Your task to perform on an android device: See recent photos Image 0: 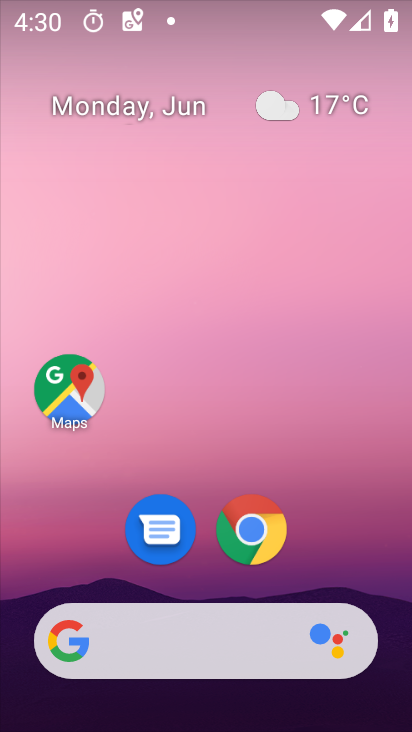
Step 0: drag from (334, 555) to (293, 119)
Your task to perform on an android device: See recent photos Image 1: 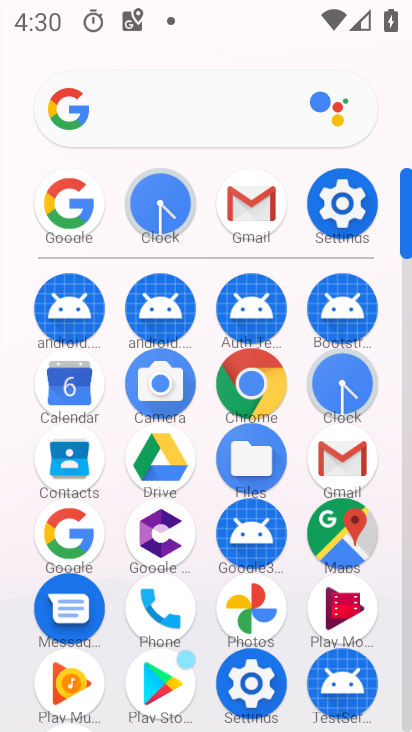
Step 1: click (254, 604)
Your task to perform on an android device: See recent photos Image 2: 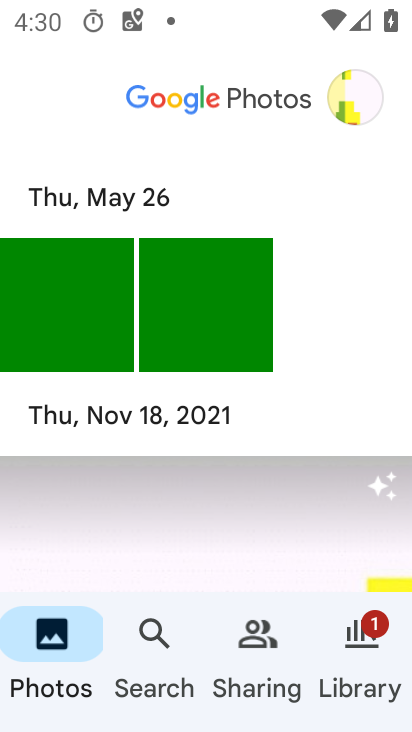
Step 2: drag from (134, 508) to (235, 250)
Your task to perform on an android device: See recent photos Image 3: 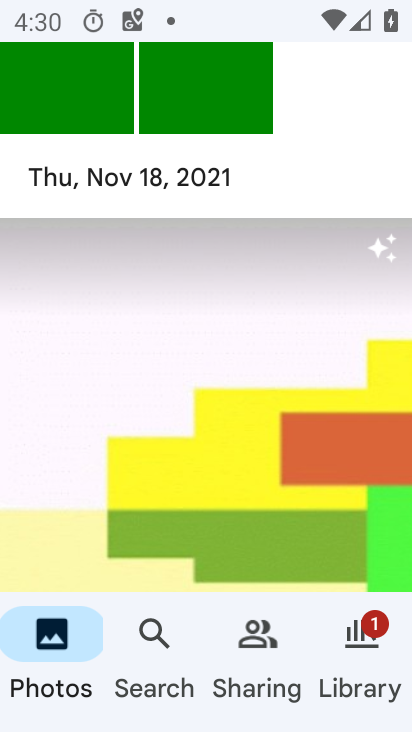
Step 3: click (116, 101)
Your task to perform on an android device: See recent photos Image 4: 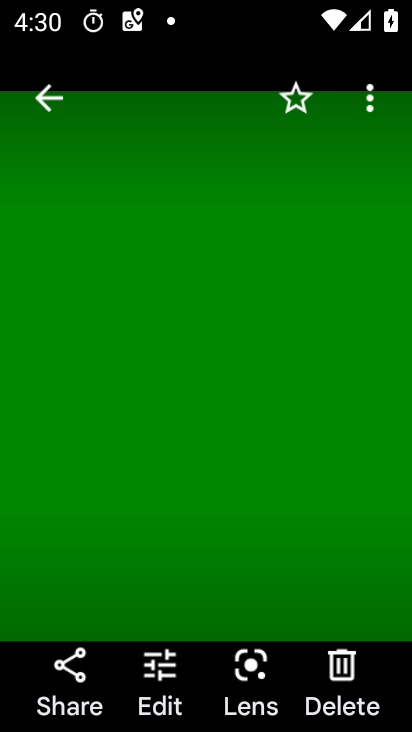
Step 4: task complete